Your task to perform on an android device: turn on data saver in the chrome app Image 0: 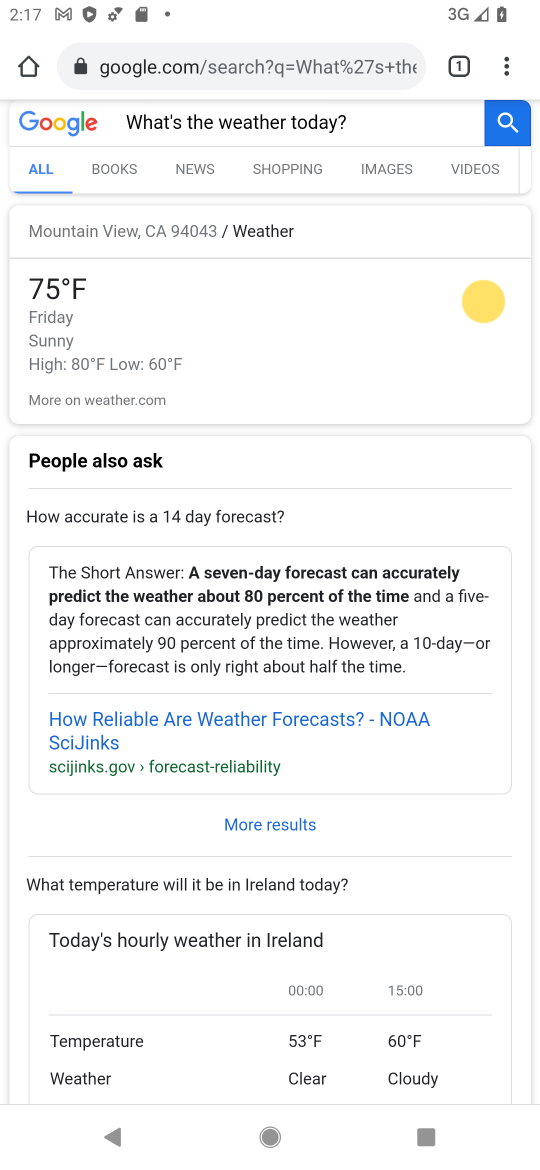
Step 0: press home button
Your task to perform on an android device: turn on data saver in the chrome app Image 1: 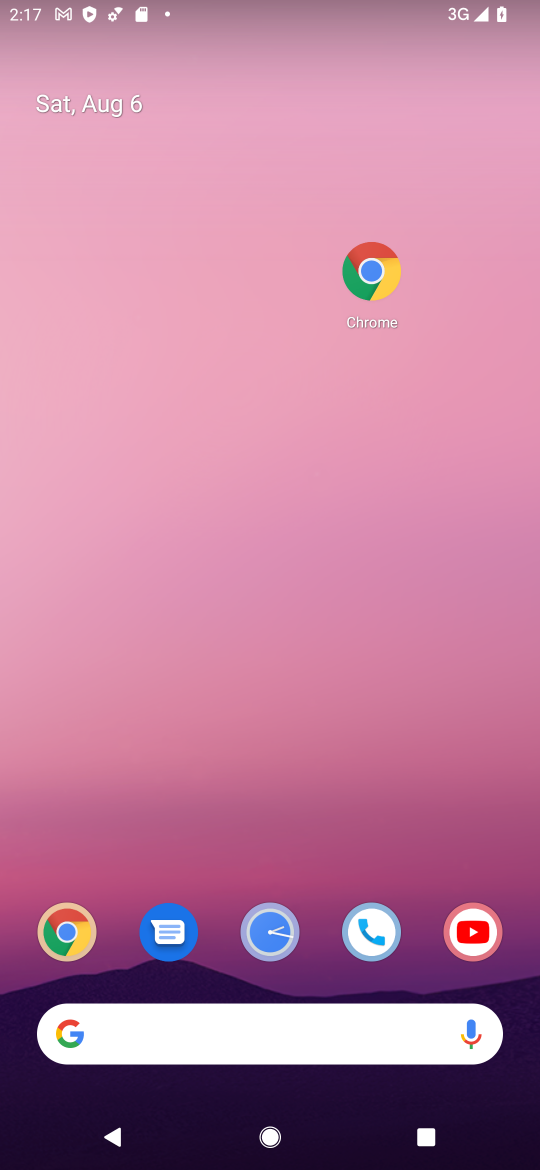
Step 1: drag from (221, 899) to (252, 56)
Your task to perform on an android device: turn on data saver in the chrome app Image 2: 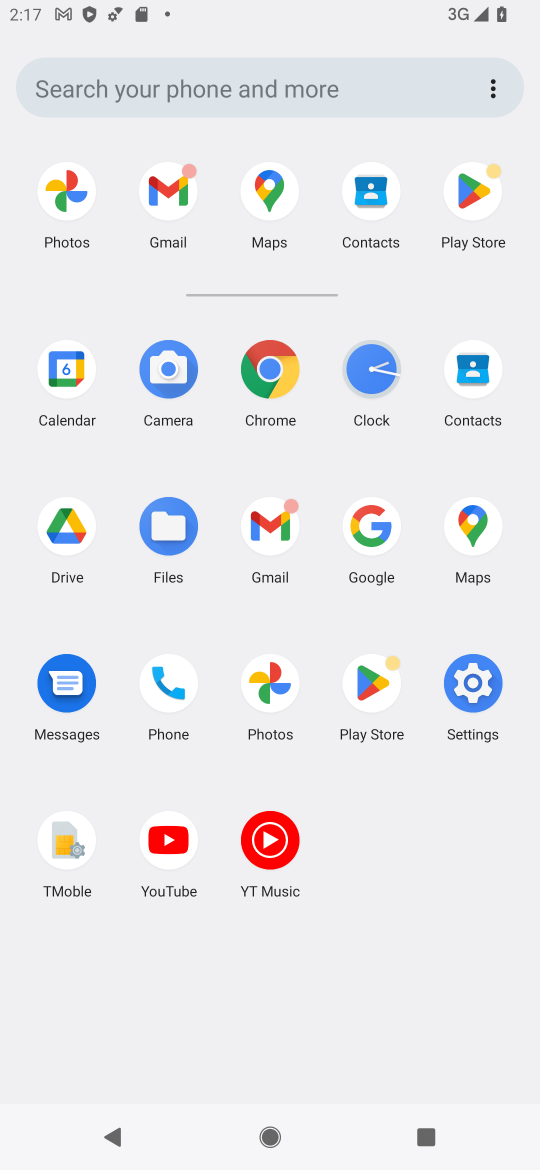
Step 2: click (259, 360)
Your task to perform on an android device: turn on data saver in the chrome app Image 3: 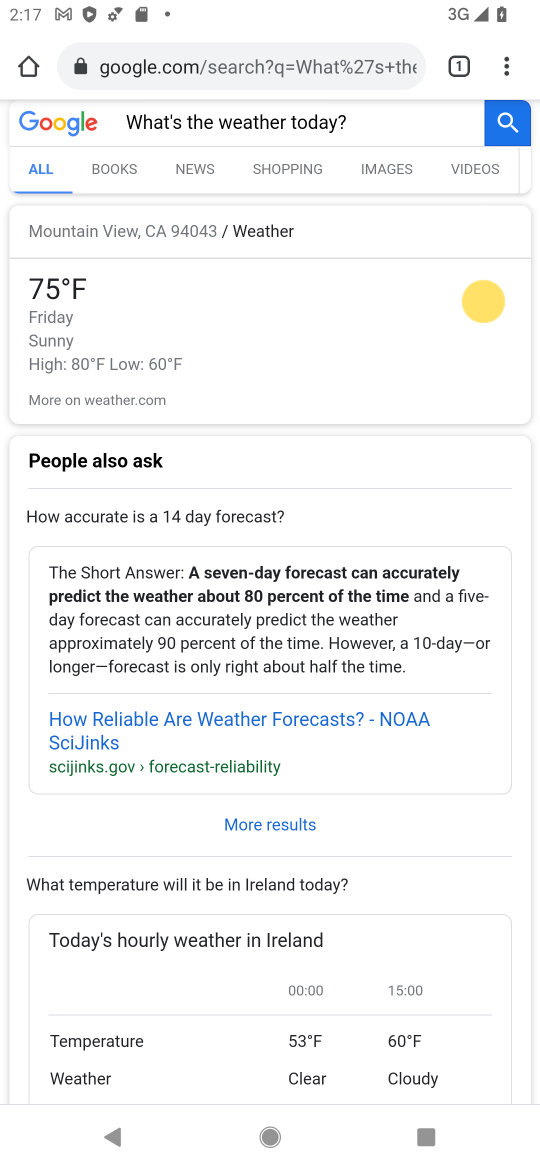
Step 3: drag from (508, 54) to (348, 854)
Your task to perform on an android device: turn on data saver in the chrome app Image 4: 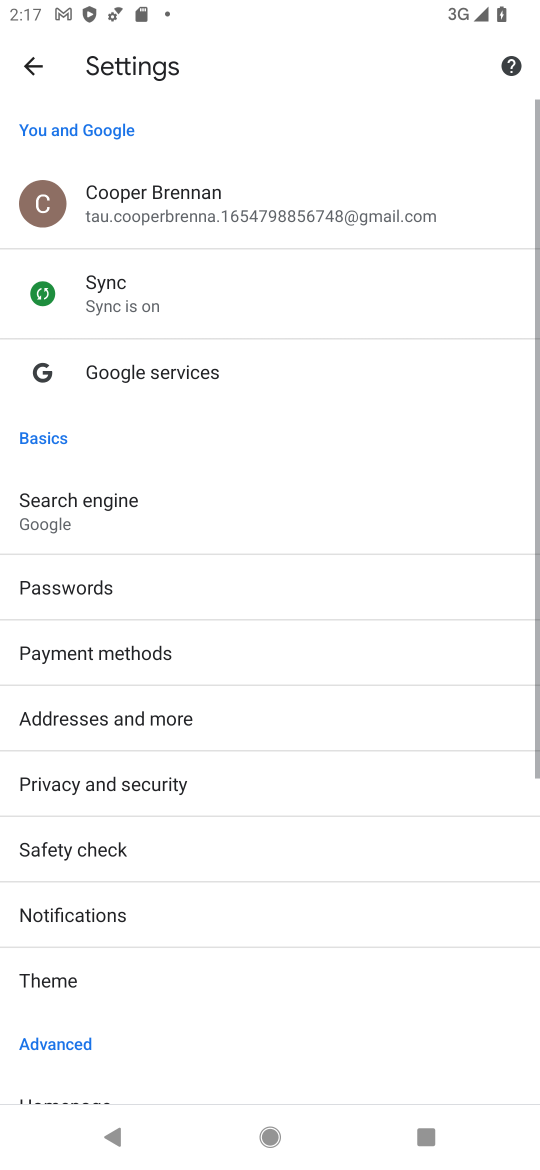
Step 4: drag from (329, 732) to (248, 161)
Your task to perform on an android device: turn on data saver in the chrome app Image 5: 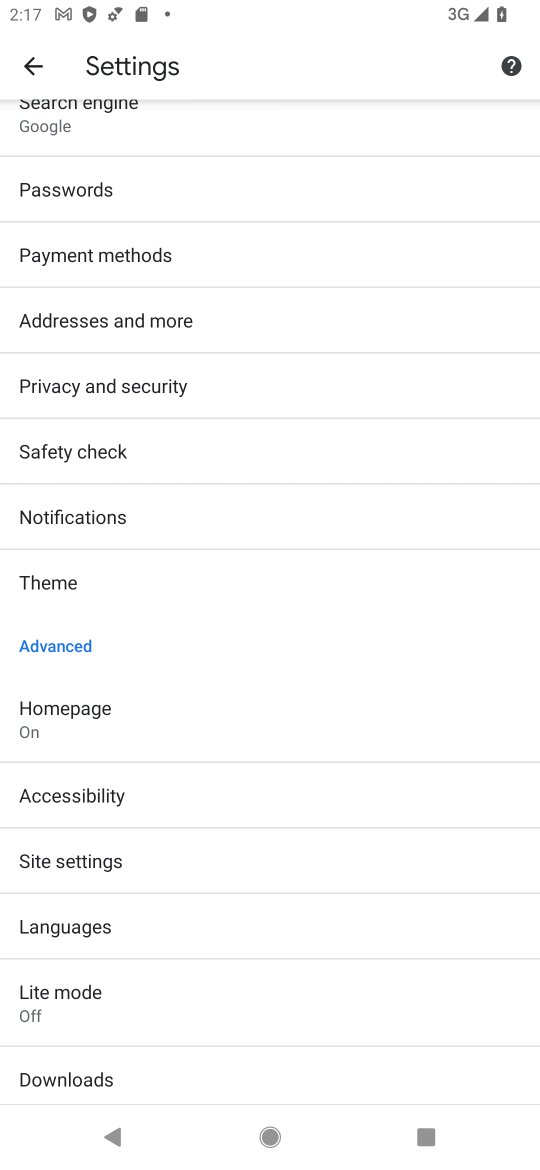
Step 5: click (101, 982)
Your task to perform on an android device: turn on data saver in the chrome app Image 6: 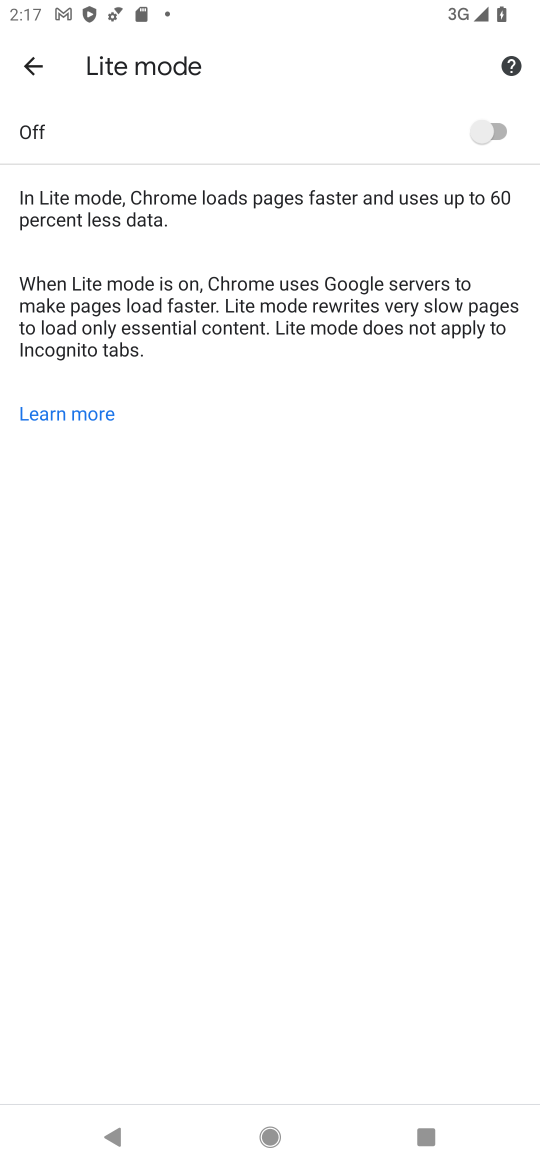
Step 6: task complete